Your task to perform on an android device: toggle pop-ups in chrome Image 0: 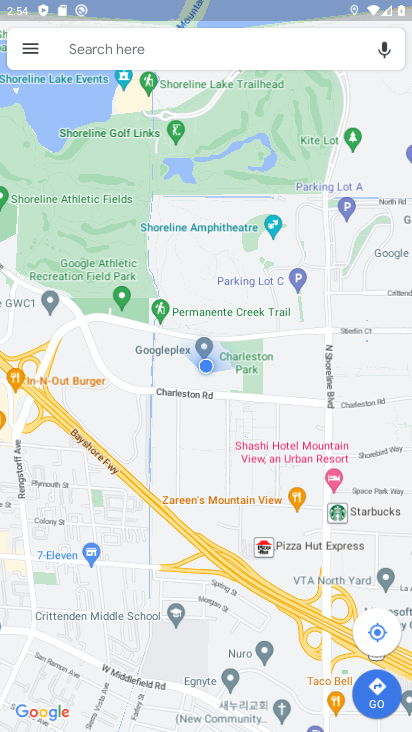
Step 0: press home button
Your task to perform on an android device: toggle pop-ups in chrome Image 1: 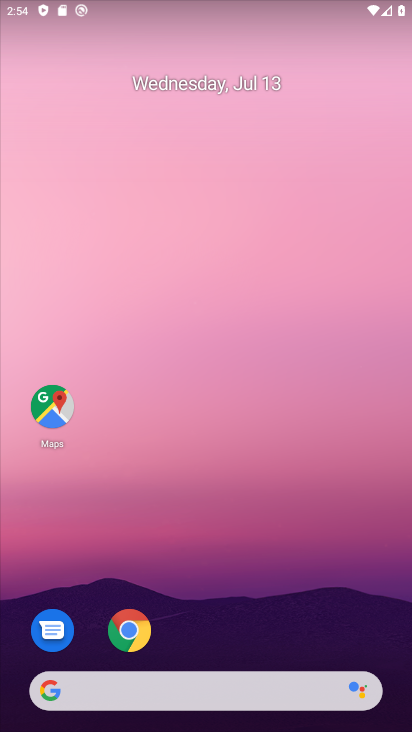
Step 1: click (137, 630)
Your task to perform on an android device: toggle pop-ups in chrome Image 2: 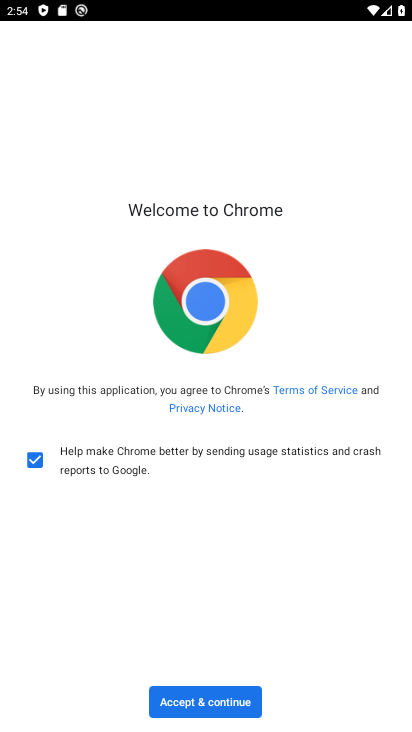
Step 2: click (199, 713)
Your task to perform on an android device: toggle pop-ups in chrome Image 3: 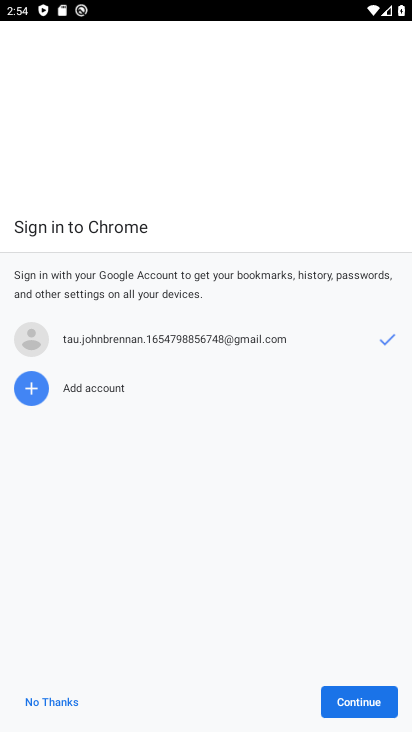
Step 3: click (353, 702)
Your task to perform on an android device: toggle pop-ups in chrome Image 4: 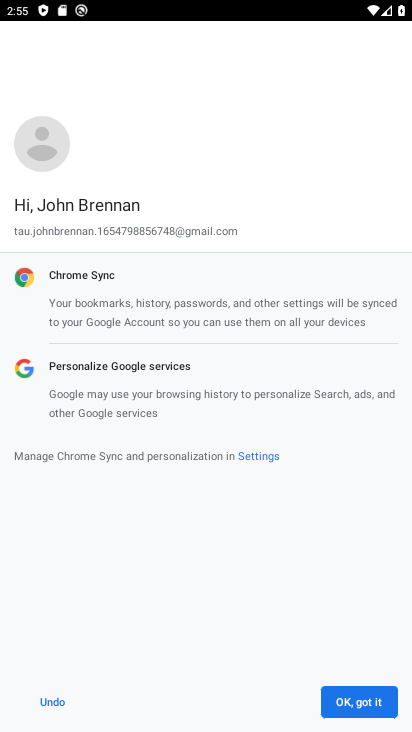
Step 4: click (354, 702)
Your task to perform on an android device: toggle pop-ups in chrome Image 5: 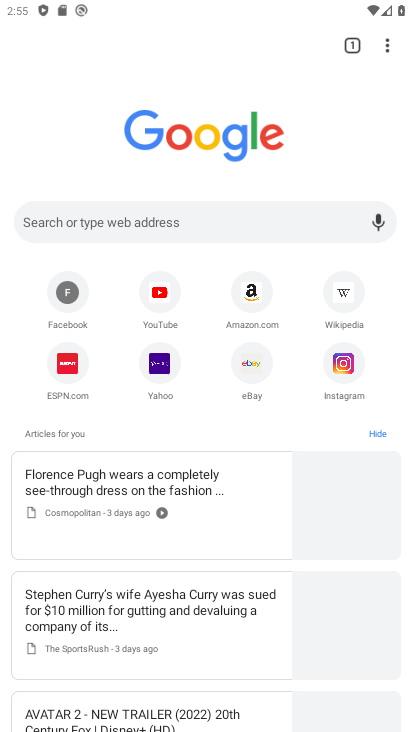
Step 5: click (384, 45)
Your task to perform on an android device: toggle pop-ups in chrome Image 6: 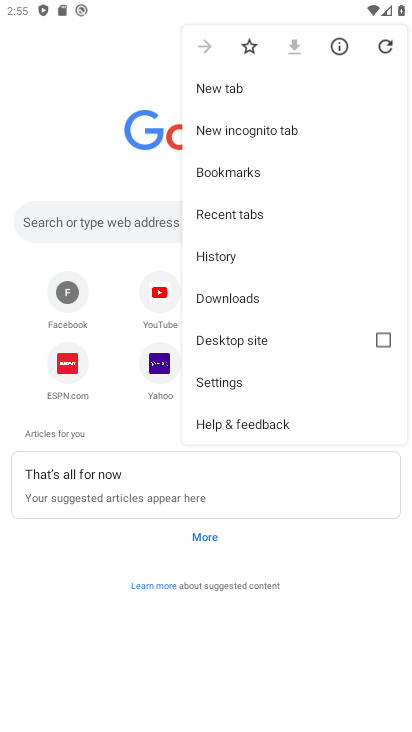
Step 6: click (216, 381)
Your task to perform on an android device: toggle pop-ups in chrome Image 7: 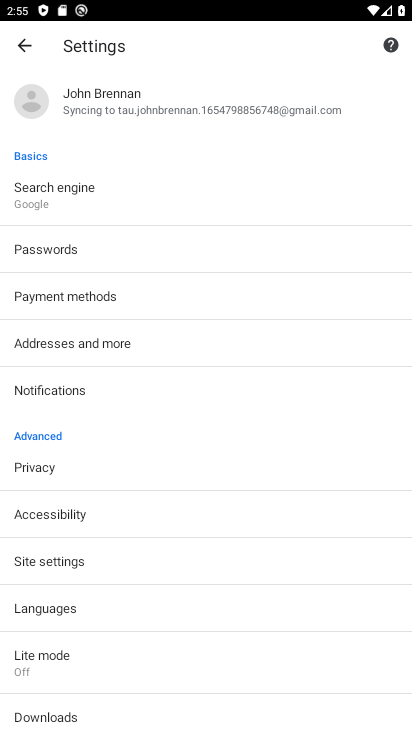
Step 7: click (29, 563)
Your task to perform on an android device: toggle pop-ups in chrome Image 8: 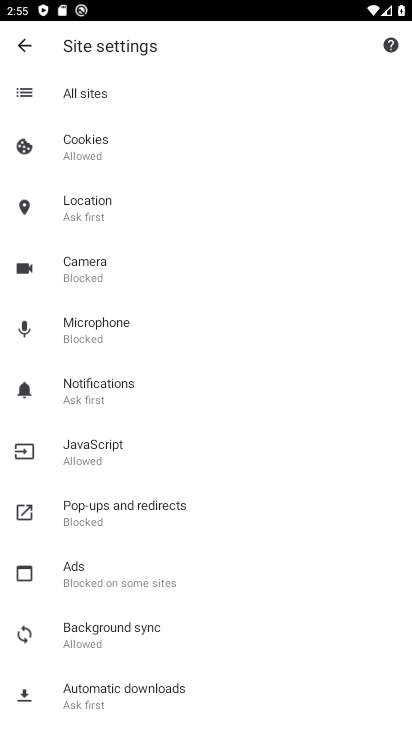
Step 8: click (74, 511)
Your task to perform on an android device: toggle pop-ups in chrome Image 9: 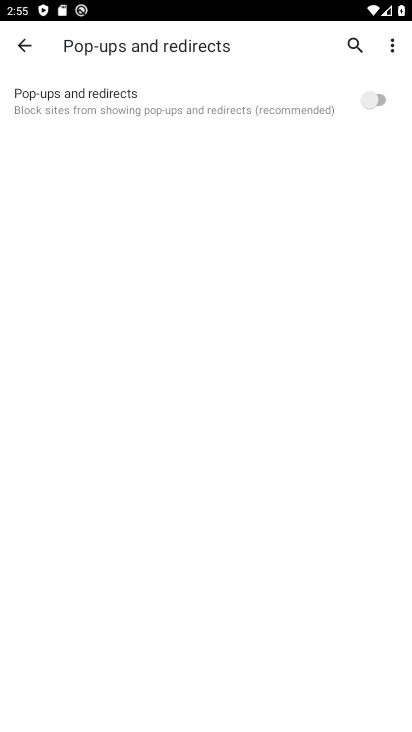
Step 9: click (379, 100)
Your task to perform on an android device: toggle pop-ups in chrome Image 10: 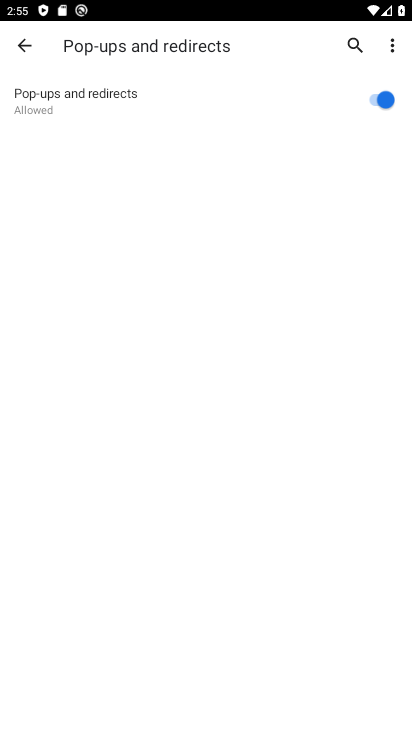
Step 10: task complete